Your task to perform on an android device: What is the recent news? Image 0: 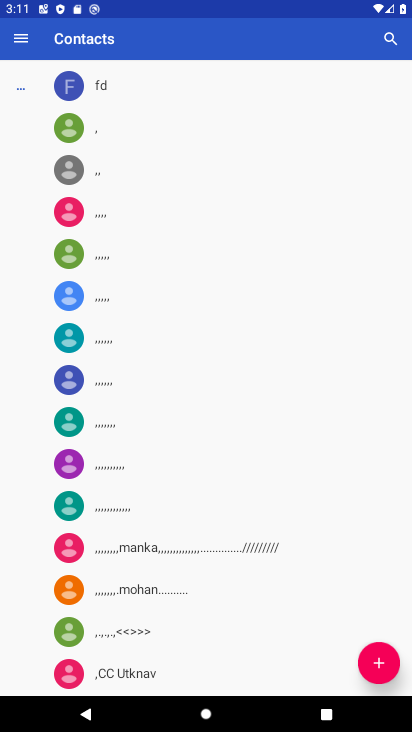
Step 0: press back button
Your task to perform on an android device: What is the recent news? Image 1: 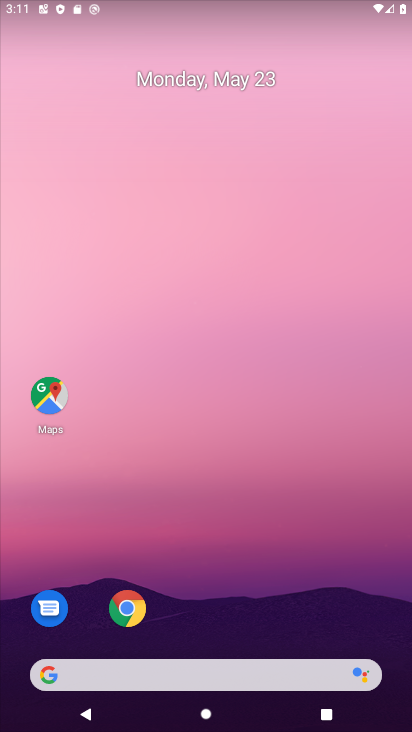
Step 1: drag from (265, 601) to (225, 117)
Your task to perform on an android device: What is the recent news? Image 2: 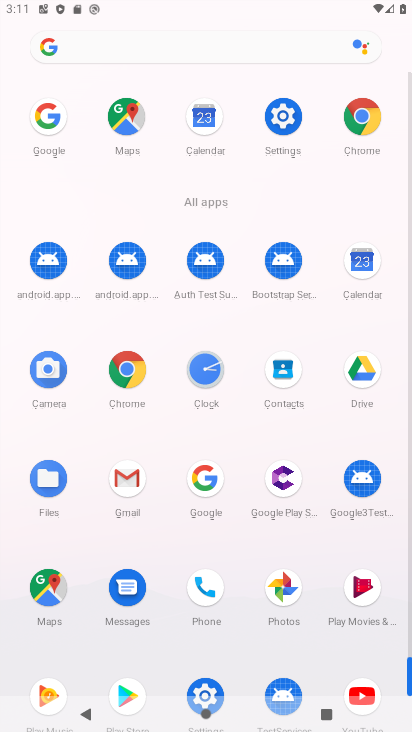
Step 2: click (202, 478)
Your task to perform on an android device: What is the recent news? Image 3: 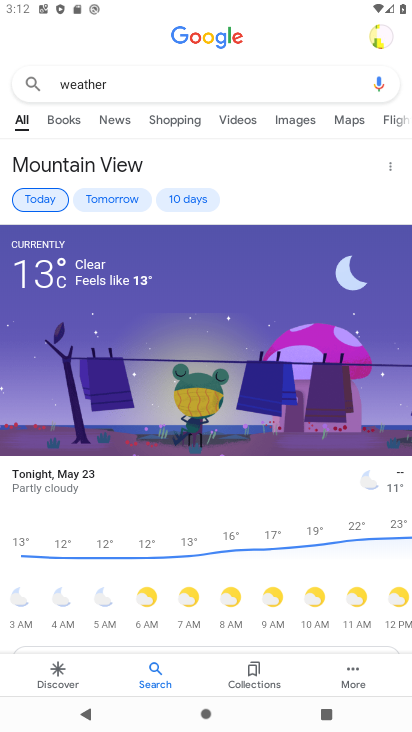
Step 3: click (223, 88)
Your task to perform on an android device: What is the recent news? Image 4: 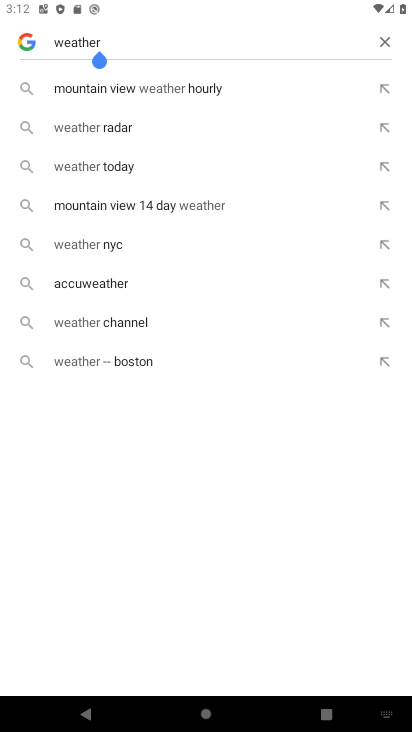
Step 4: click (383, 44)
Your task to perform on an android device: What is the recent news? Image 5: 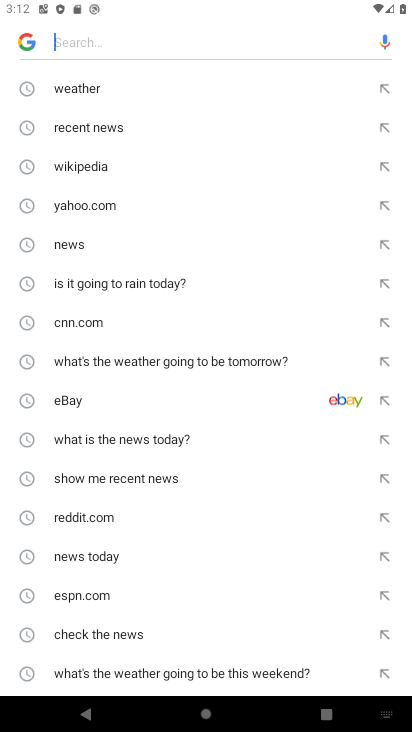
Step 5: type "recent news"
Your task to perform on an android device: What is the recent news? Image 6: 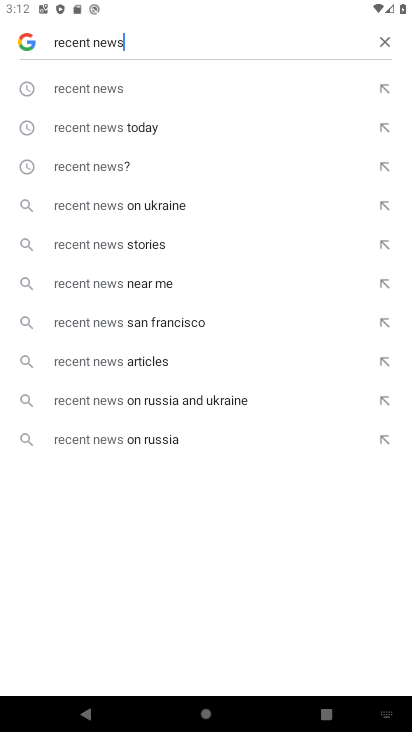
Step 6: click (104, 86)
Your task to perform on an android device: What is the recent news? Image 7: 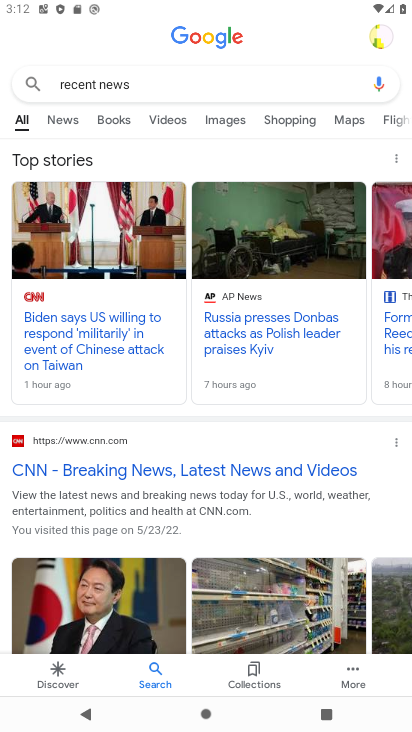
Step 7: task complete